Your task to perform on an android device: star an email in the gmail app Image 0: 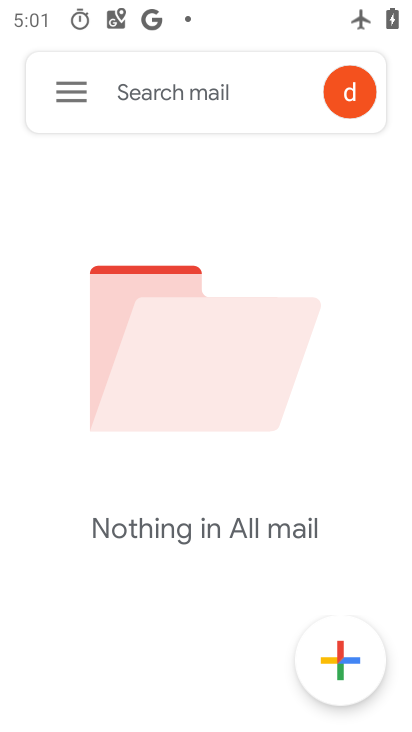
Step 0: task impossible